Your task to perform on an android device: What's the weather today? Image 0: 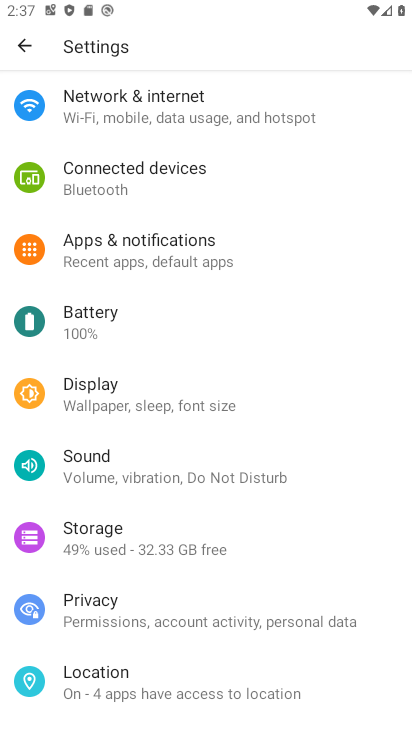
Step 0: press home button
Your task to perform on an android device: What's the weather today? Image 1: 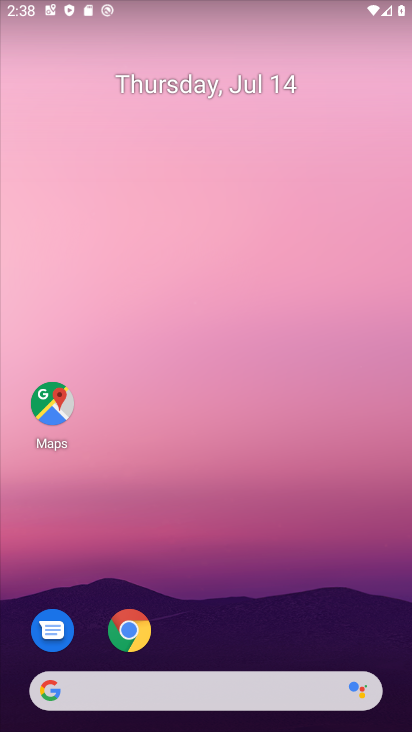
Step 1: click (176, 686)
Your task to perform on an android device: What's the weather today? Image 2: 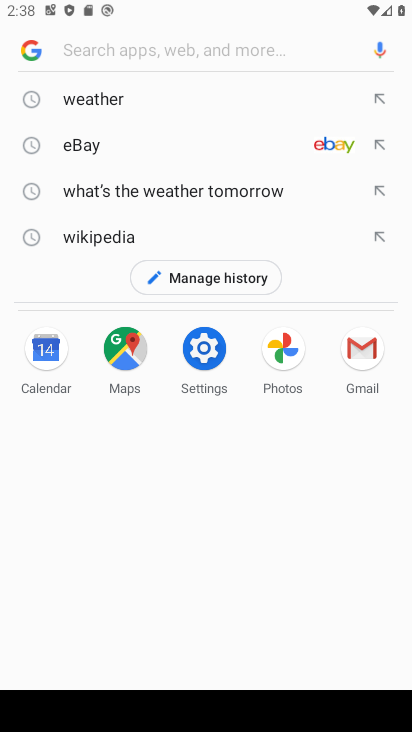
Step 2: click (126, 97)
Your task to perform on an android device: What's the weather today? Image 3: 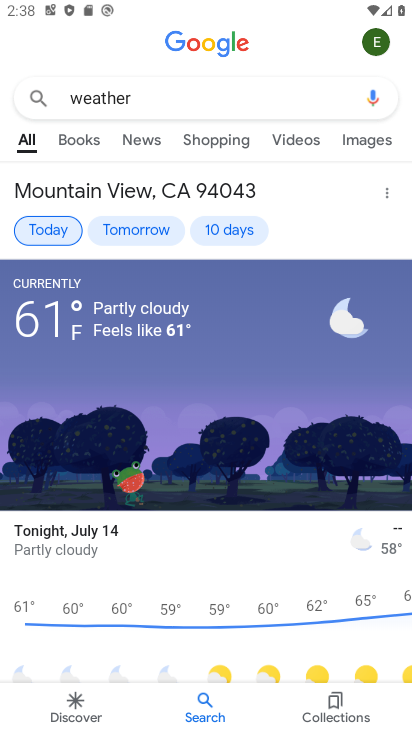
Step 3: task complete